Your task to perform on an android device: Open display settings Image 0: 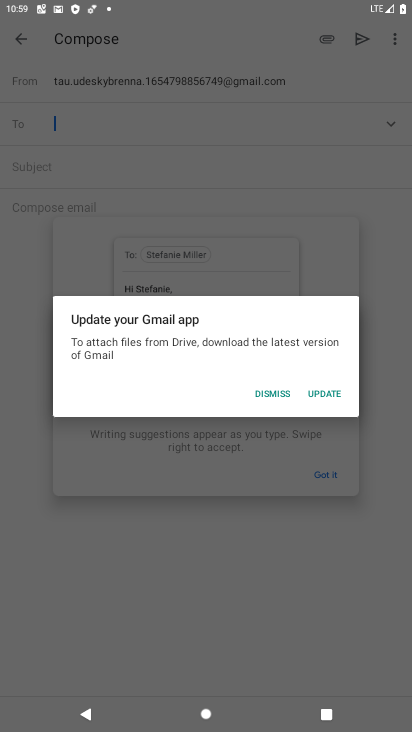
Step 0: click (256, 390)
Your task to perform on an android device: Open display settings Image 1: 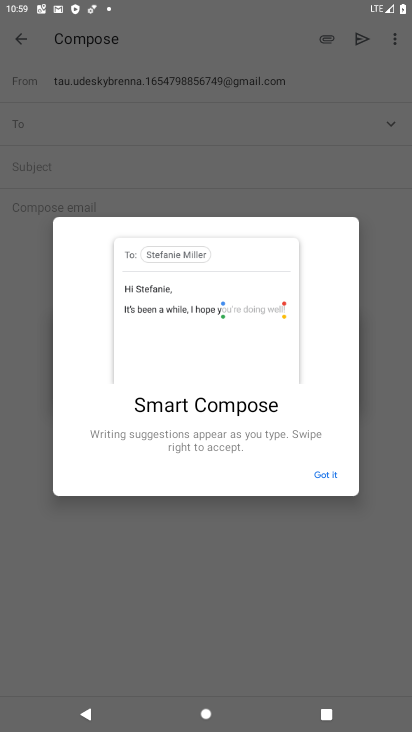
Step 1: click (321, 472)
Your task to perform on an android device: Open display settings Image 2: 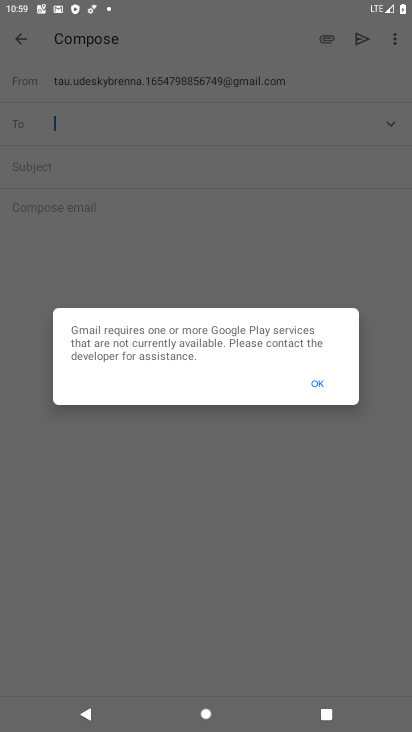
Step 2: click (326, 378)
Your task to perform on an android device: Open display settings Image 3: 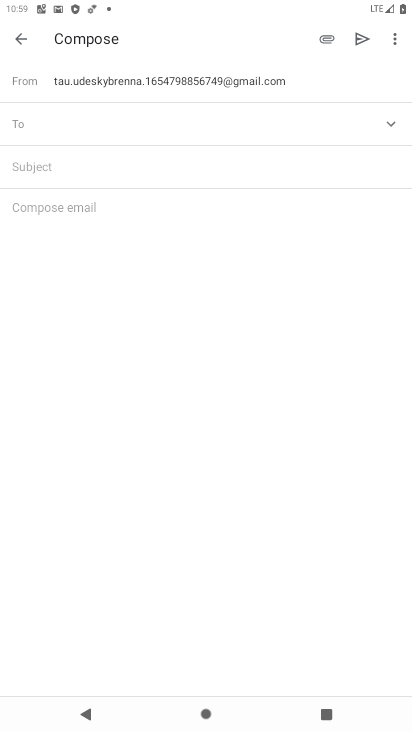
Step 3: press back button
Your task to perform on an android device: Open display settings Image 4: 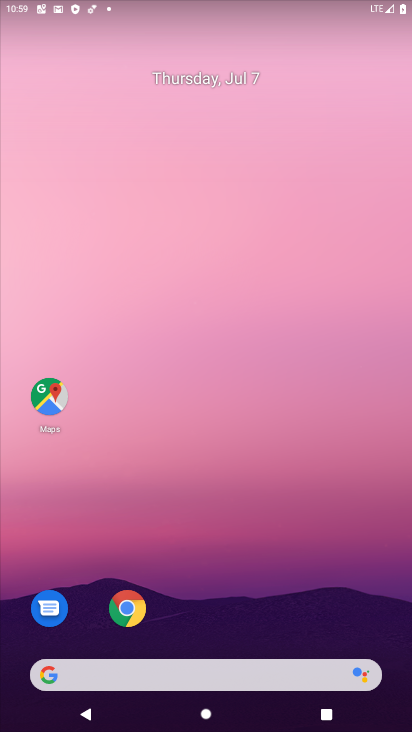
Step 4: drag from (151, 672) to (205, 38)
Your task to perform on an android device: Open display settings Image 5: 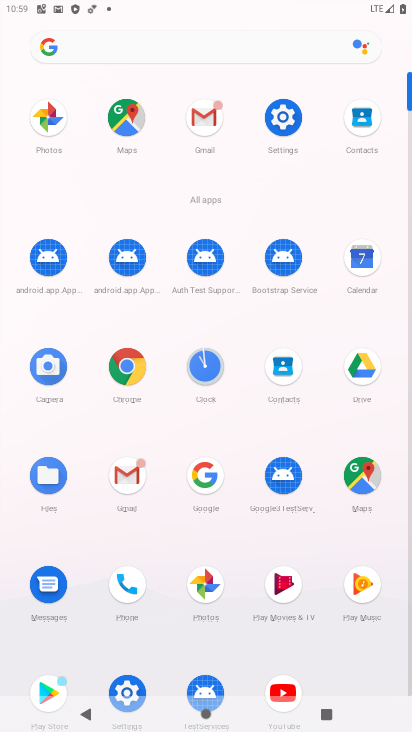
Step 5: click (261, 119)
Your task to perform on an android device: Open display settings Image 6: 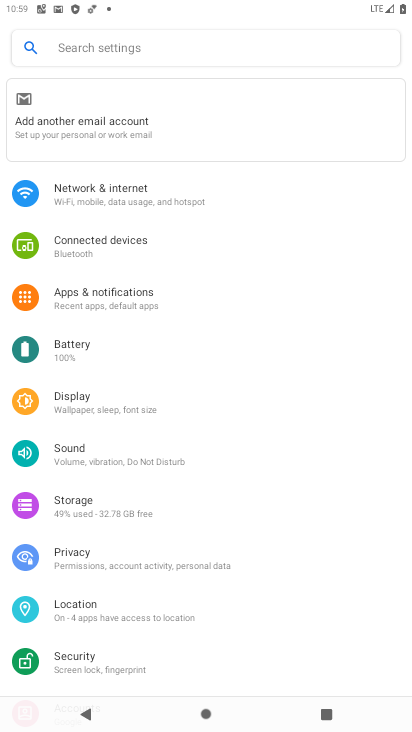
Step 6: click (91, 405)
Your task to perform on an android device: Open display settings Image 7: 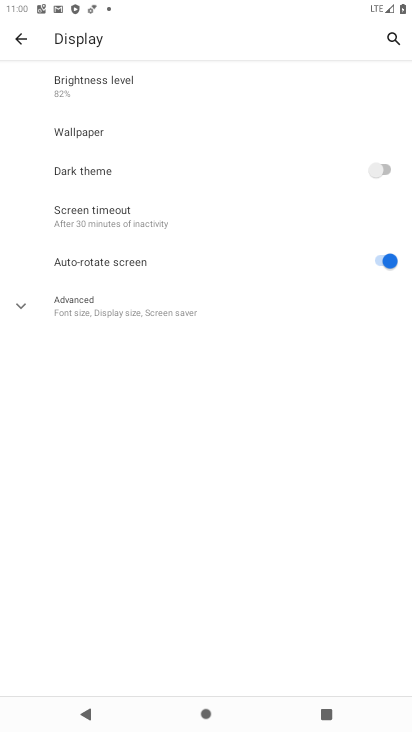
Step 7: task complete